Your task to perform on an android device: Open accessibility settings Image 0: 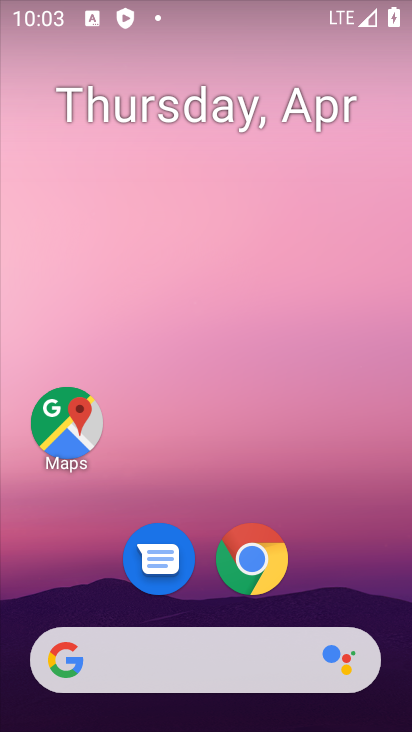
Step 0: drag from (217, 716) to (131, 116)
Your task to perform on an android device: Open accessibility settings Image 1: 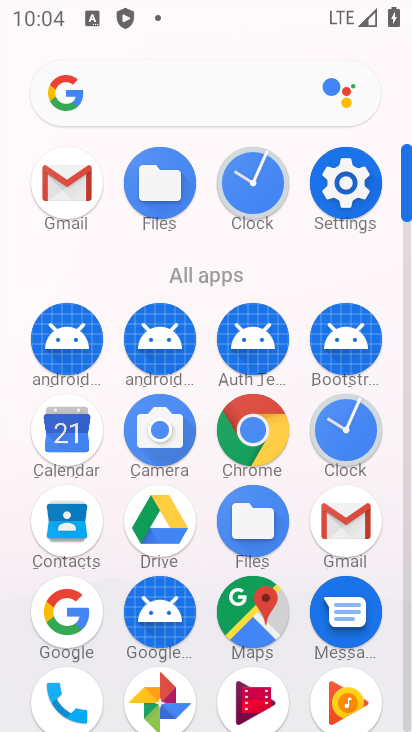
Step 1: click (338, 188)
Your task to perform on an android device: Open accessibility settings Image 2: 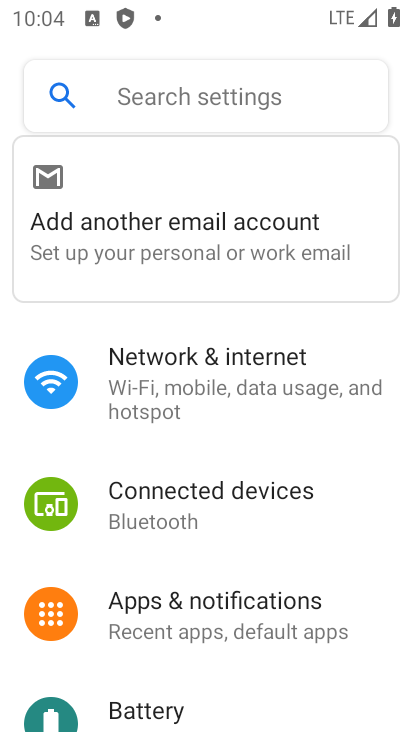
Step 2: drag from (317, 687) to (321, 2)
Your task to perform on an android device: Open accessibility settings Image 3: 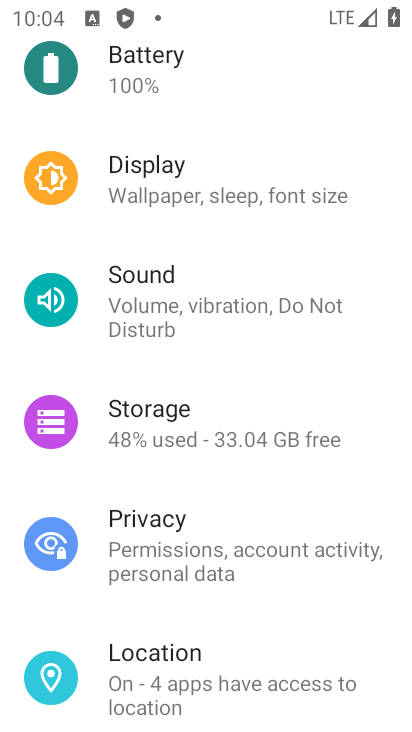
Step 3: drag from (333, 687) to (343, 24)
Your task to perform on an android device: Open accessibility settings Image 4: 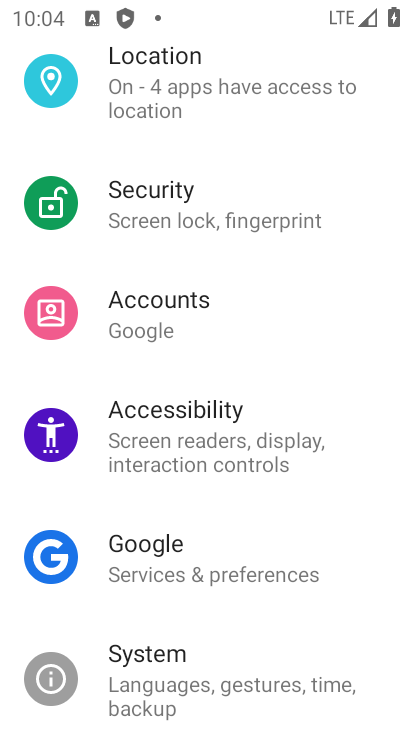
Step 4: click (283, 450)
Your task to perform on an android device: Open accessibility settings Image 5: 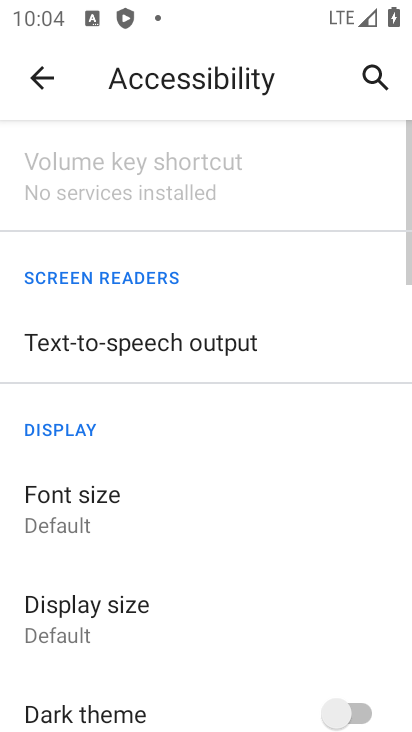
Step 5: task complete